Your task to perform on an android device: Open Google Maps Image 0: 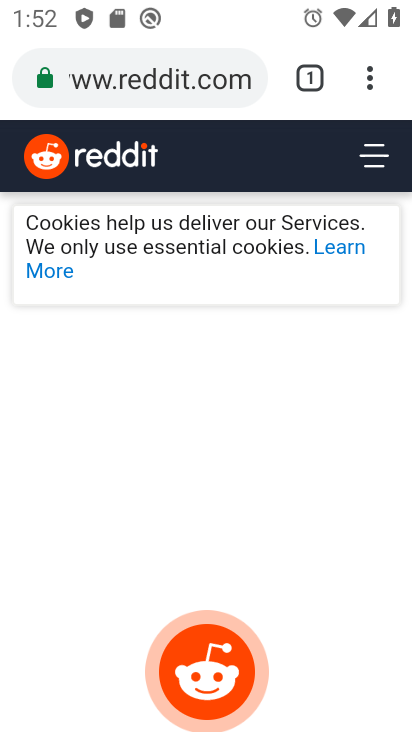
Step 0: press home button
Your task to perform on an android device: Open Google Maps Image 1: 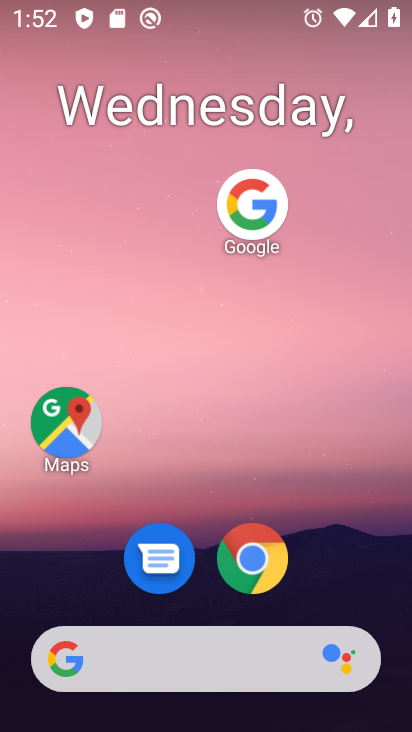
Step 1: click (82, 407)
Your task to perform on an android device: Open Google Maps Image 2: 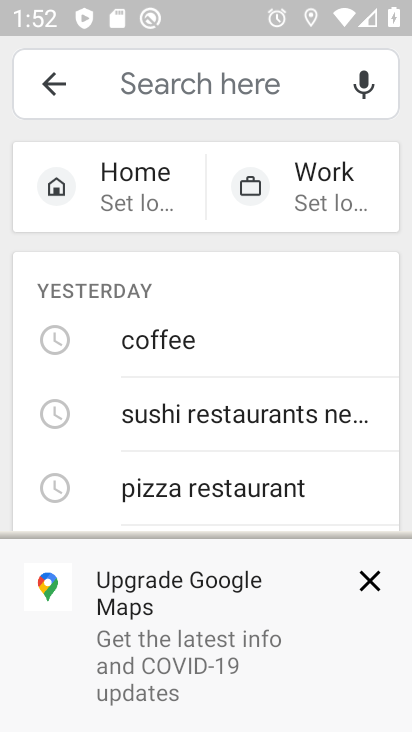
Step 2: task complete